Your task to perform on an android device: Search for vegetarian restaurants on Maps Image 0: 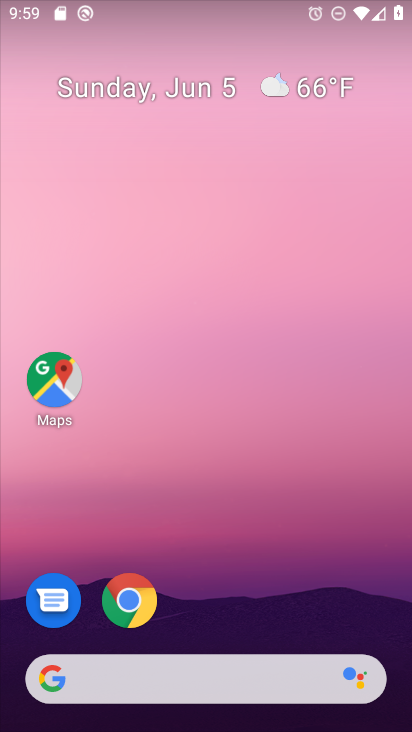
Step 0: drag from (382, 610) to (321, 51)
Your task to perform on an android device: Search for vegetarian restaurants on Maps Image 1: 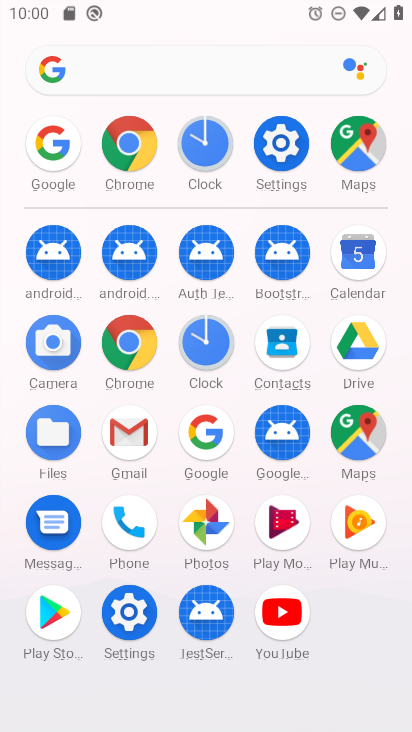
Step 1: click (378, 412)
Your task to perform on an android device: Search for vegetarian restaurants on Maps Image 2: 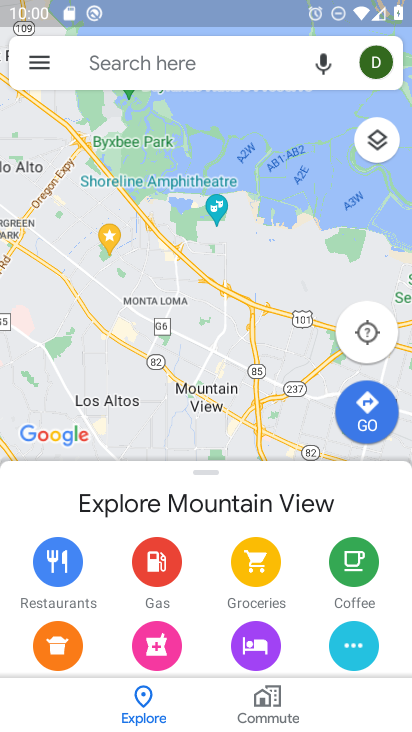
Step 2: click (134, 56)
Your task to perform on an android device: Search for vegetarian restaurants on Maps Image 3: 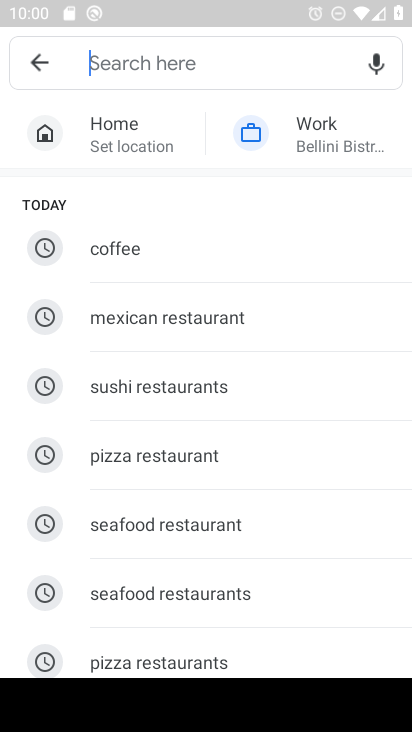
Step 3: drag from (191, 599) to (229, 219)
Your task to perform on an android device: Search for vegetarian restaurants on Maps Image 4: 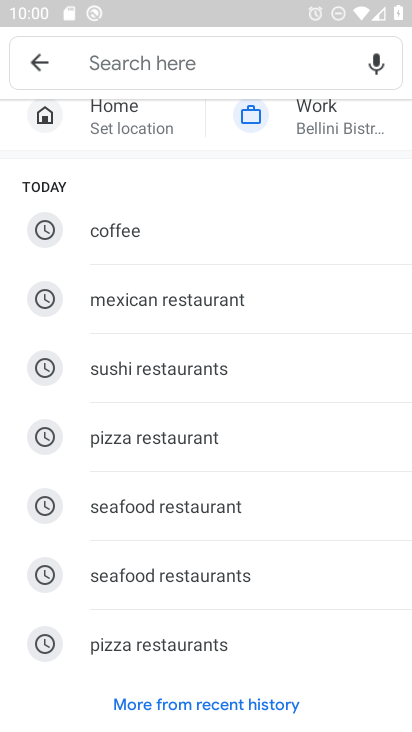
Step 4: click (153, 63)
Your task to perform on an android device: Search for vegetarian restaurants on Maps Image 5: 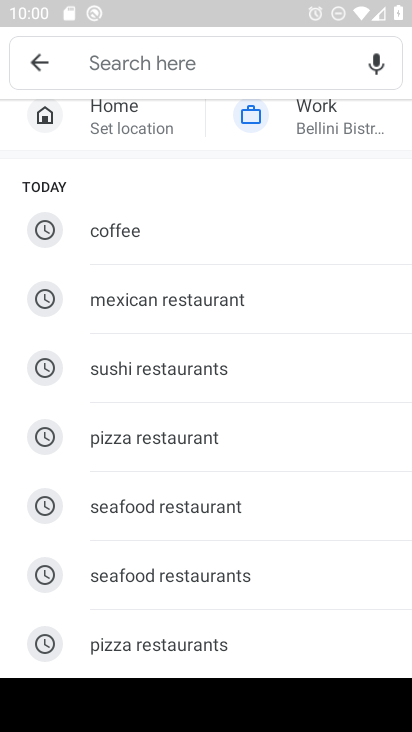
Step 5: type "vegetarian restaurants"
Your task to perform on an android device: Search for vegetarian restaurants on Maps Image 6: 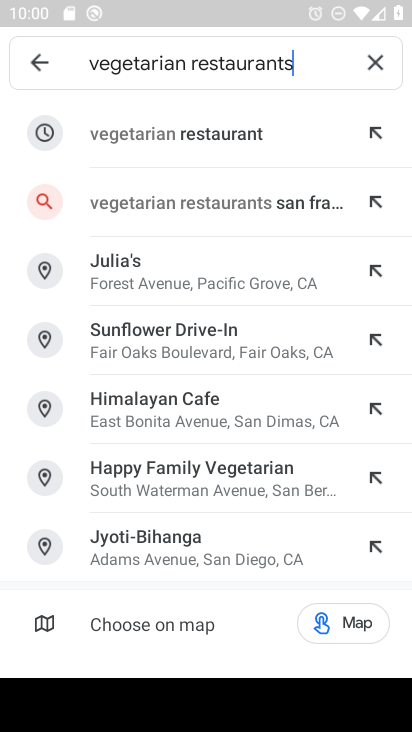
Step 6: click (198, 121)
Your task to perform on an android device: Search for vegetarian restaurants on Maps Image 7: 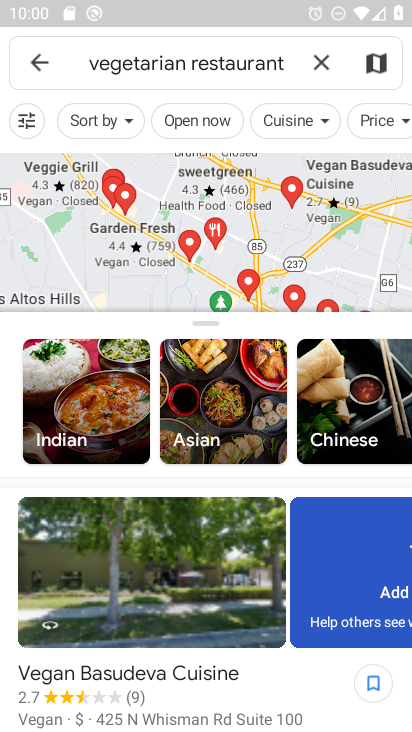
Step 7: task complete